Your task to perform on an android device: open a new tab in the chrome app Image 0: 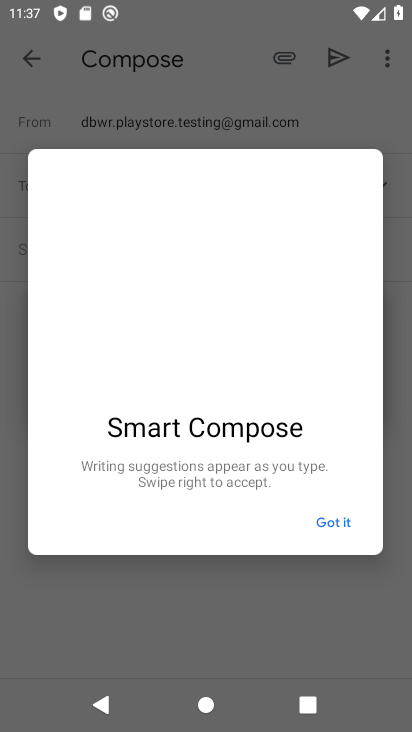
Step 0: press home button
Your task to perform on an android device: open a new tab in the chrome app Image 1: 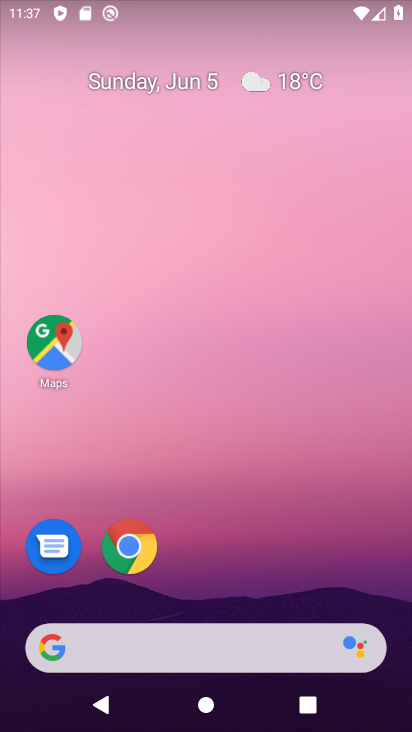
Step 1: click (120, 534)
Your task to perform on an android device: open a new tab in the chrome app Image 2: 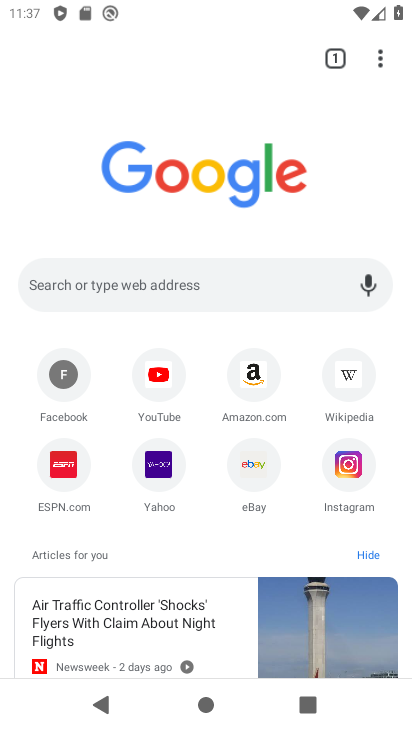
Step 2: click (385, 63)
Your task to perform on an android device: open a new tab in the chrome app Image 3: 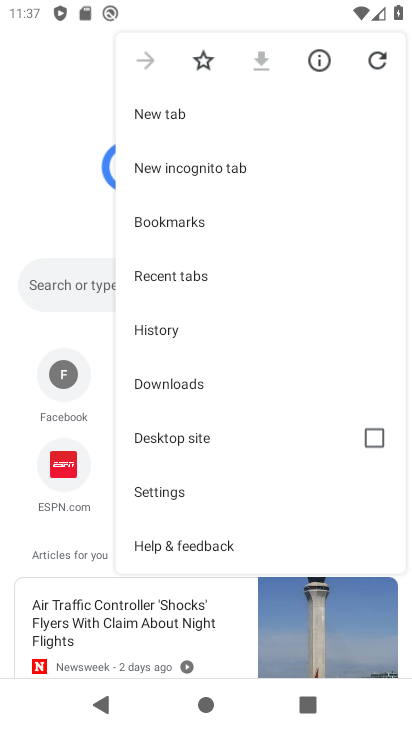
Step 3: click (145, 120)
Your task to perform on an android device: open a new tab in the chrome app Image 4: 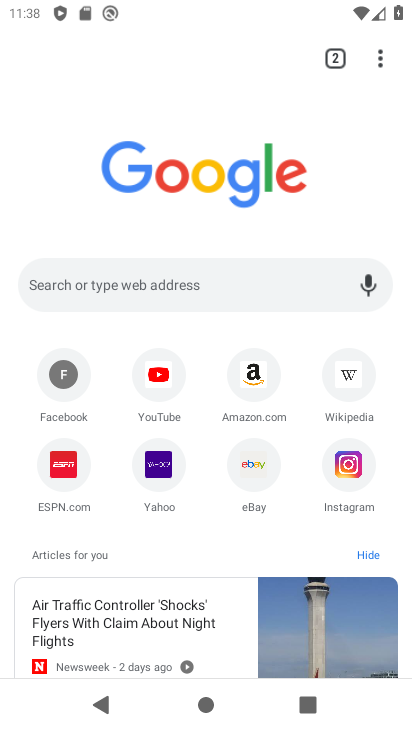
Step 4: task complete